Your task to perform on an android device: empty trash in google photos Image 0: 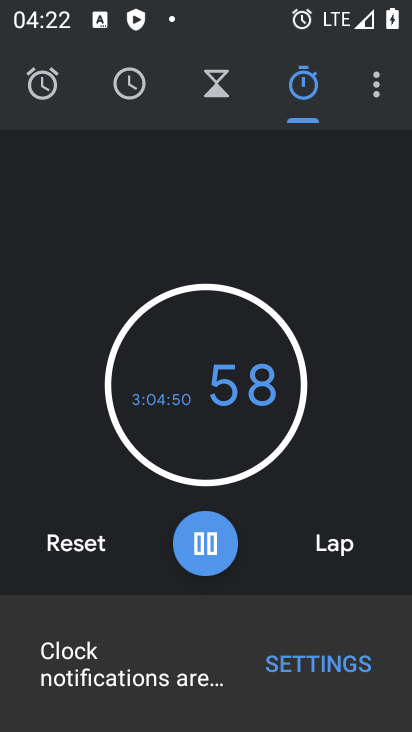
Step 0: press home button
Your task to perform on an android device: empty trash in google photos Image 1: 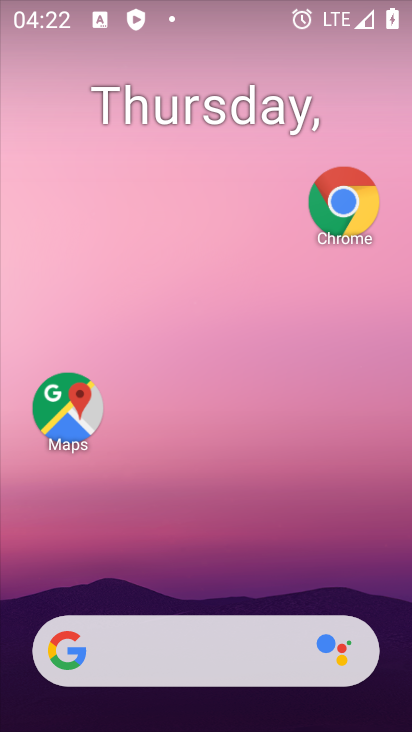
Step 1: drag from (326, 587) to (315, 55)
Your task to perform on an android device: empty trash in google photos Image 2: 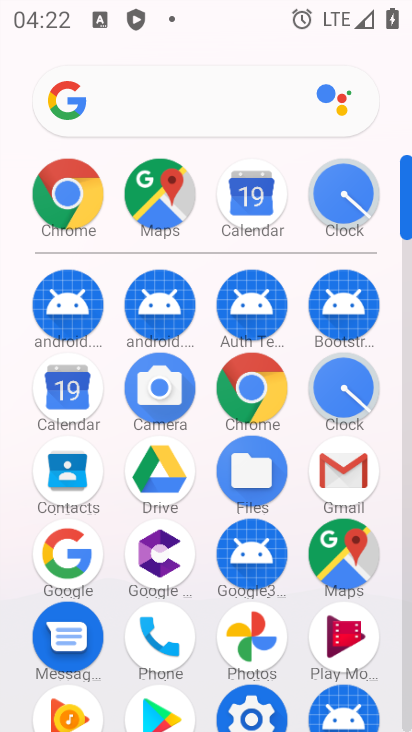
Step 2: click (235, 658)
Your task to perform on an android device: empty trash in google photos Image 3: 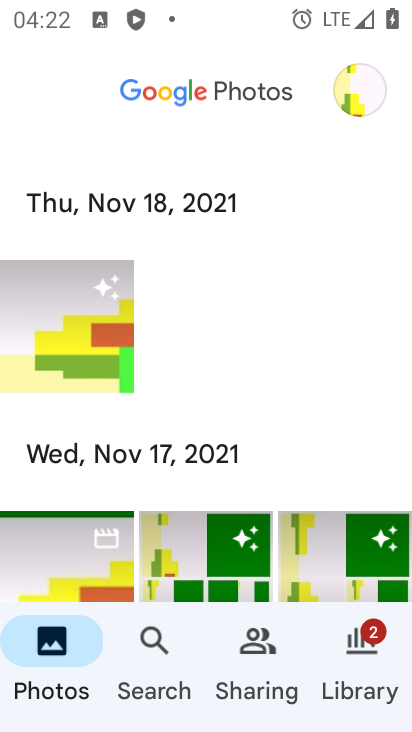
Step 3: click (360, 79)
Your task to perform on an android device: empty trash in google photos Image 4: 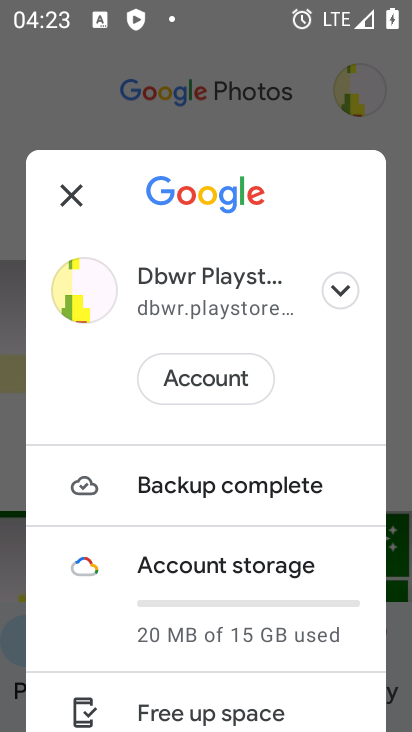
Step 4: press back button
Your task to perform on an android device: empty trash in google photos Image 5: 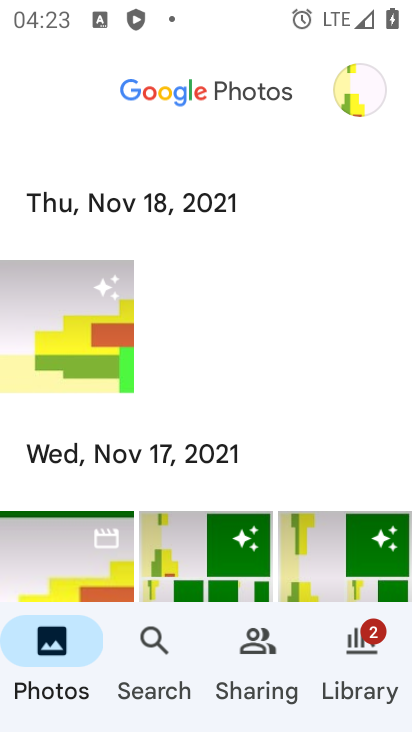
Step 5: click (370, 647)
Your task to perform on an android device: empty trash in google photos Image 6: 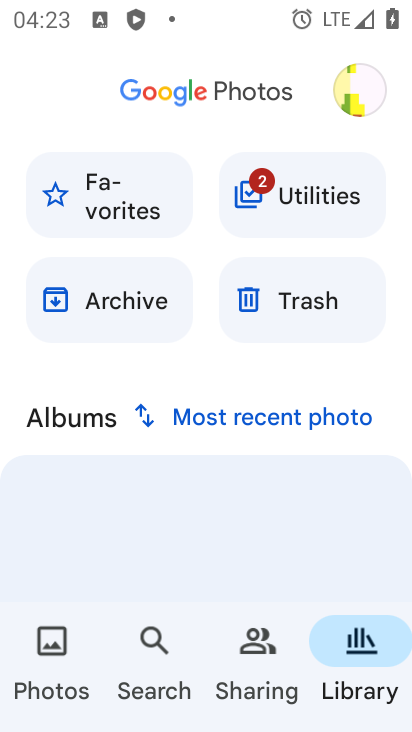
Step 6: click (329, 309)
Your task to perform on an android device: empty trash in google photos Image 7: 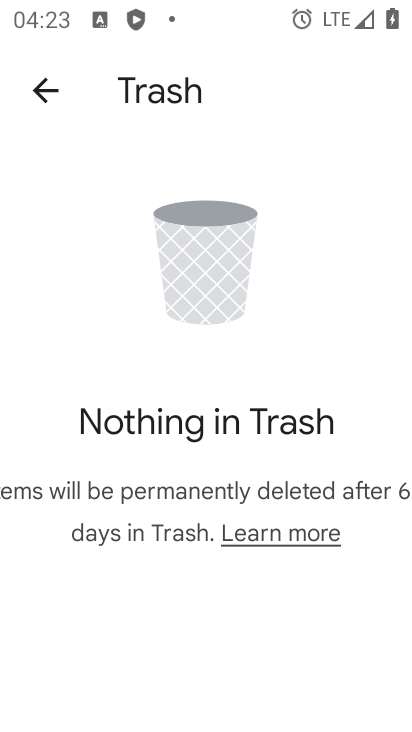
Step 7: press home button
Your task to perform on an android device: empty trash in google photos Image 8: 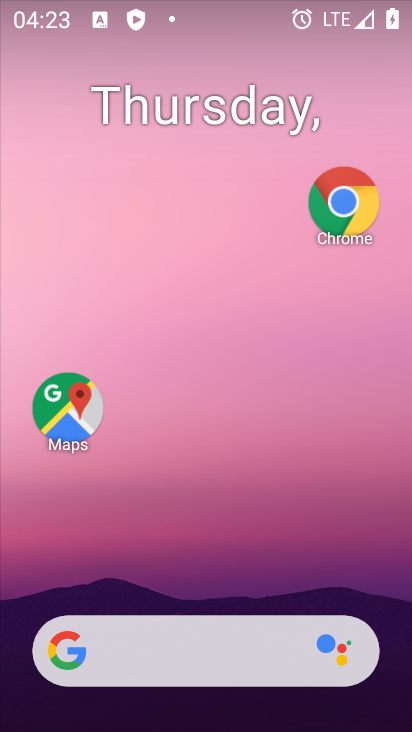
Step 8: drag from (303, 618) to (294, 6)
Your task to perform on an android device: empty trash in google photos Image 9: 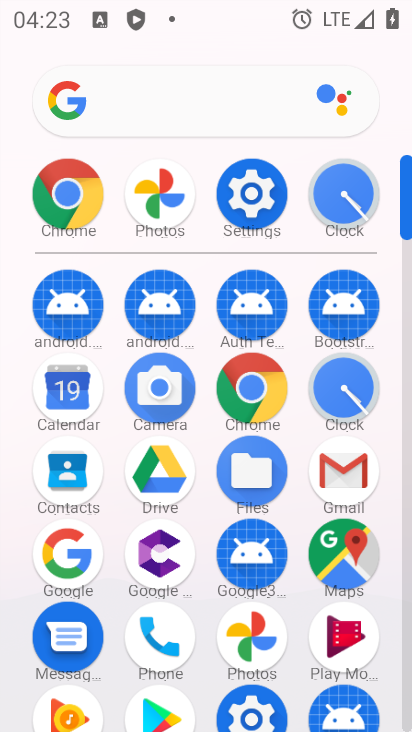
Step 9: click (246, 633)
Your task to perform on an android device: empty trash in google photos Image 10: 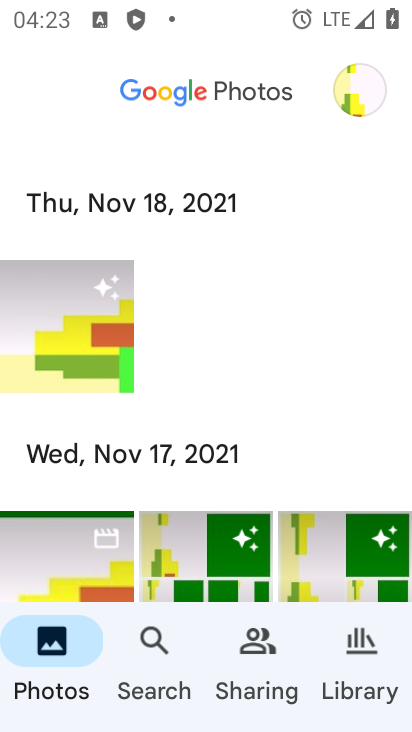
Step 10: click (363, 89)
Your task to perform on an android device: empty trash in google photos Image 11: 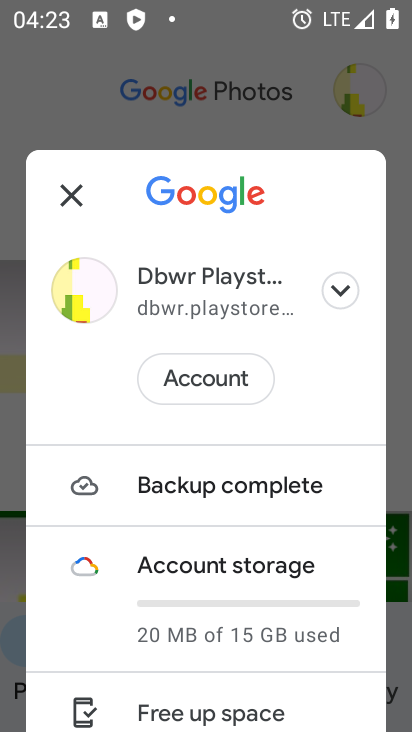
Step 11: click (77, 191)
Your task to perform on an android device: empty trash in google photos Image 12: 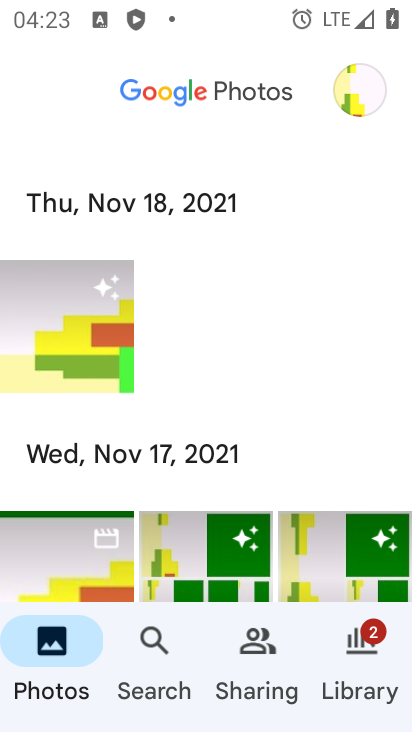
Step 12: click (358, 642)
Your task to perform on an android device: empty trash in google photos Image 13: 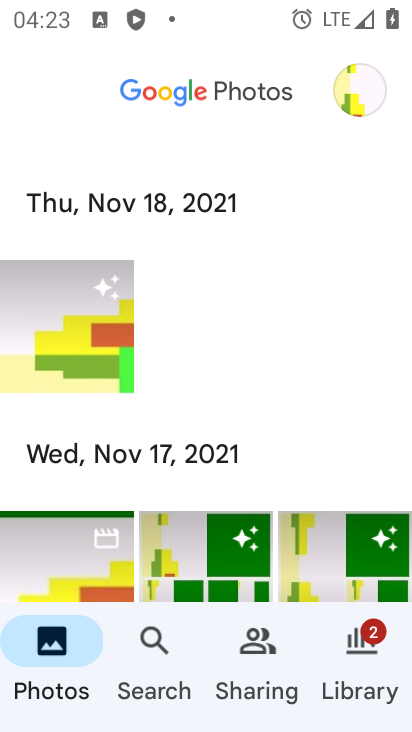
Step 13: click (359, 640)
Your task to perform on an android device: empty trash in google photos Image 14: 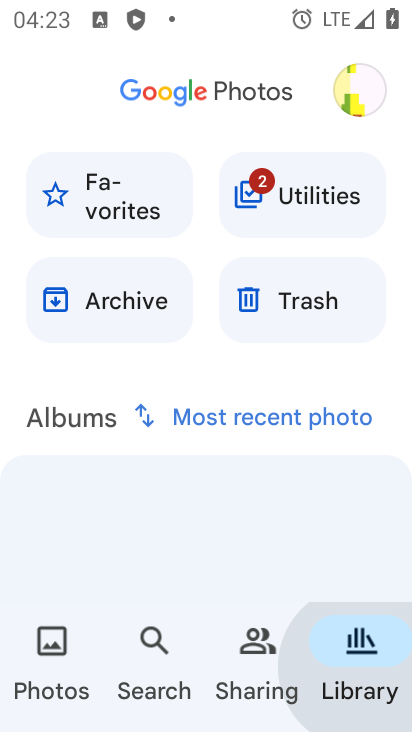
Step 14: click (362, 665)
Your task to perform on an android device: empty trash in google photos Image 15: 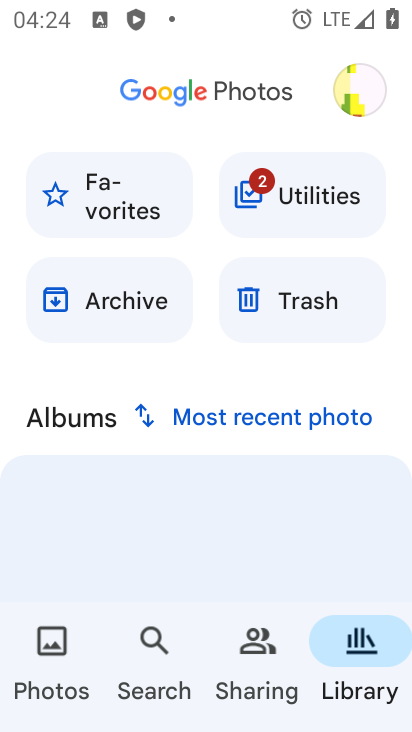
Step 15: click (288, 297)
Your task to perform on an android device: empty trash in google photos Image 16: 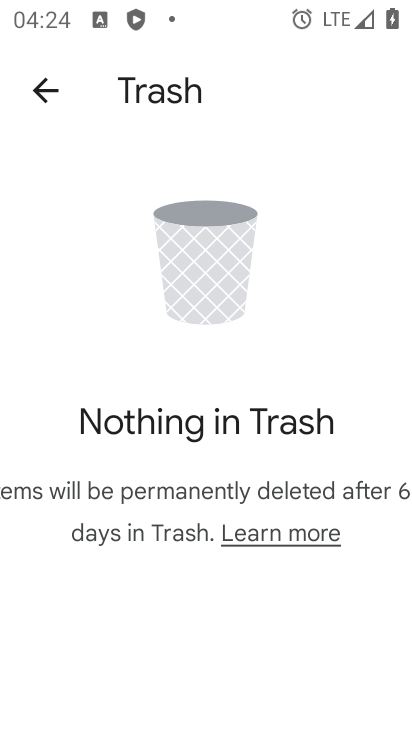
Step 16: task complete